Your task to perform on an android device: change keyboard looks Image 0: 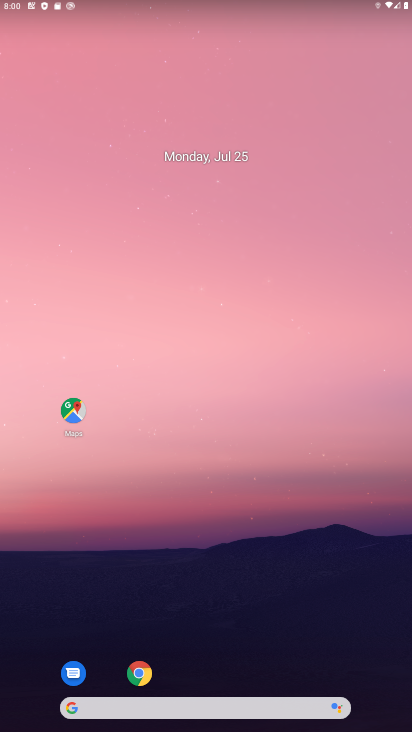
Step 0: drag from (281, 700) to (195, 217)
Your task to perform on an android device: change keyboard looks Image 1: 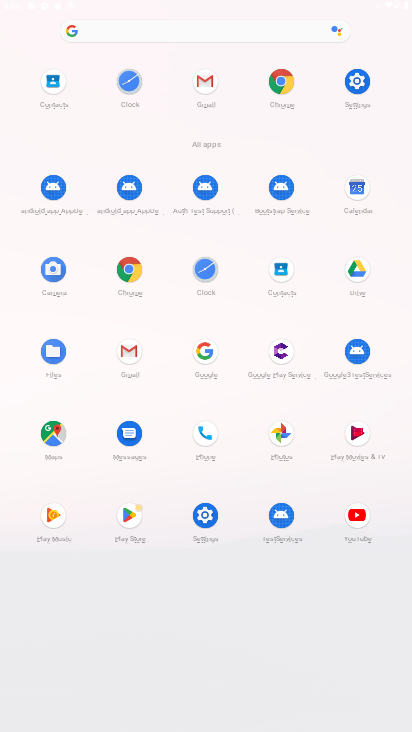
Step 1: click (206, 513)
Your task to perform on an android device: change keyboard looks Image 2: 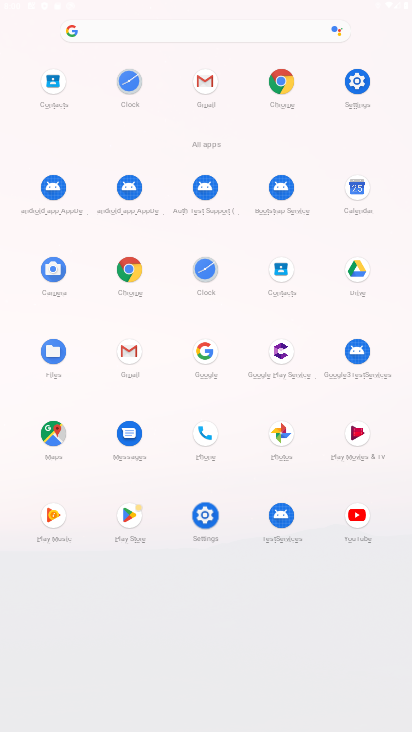
Step 2: click (206, 513)
Your task to perform on an android device: change keyboard looks Image 3: 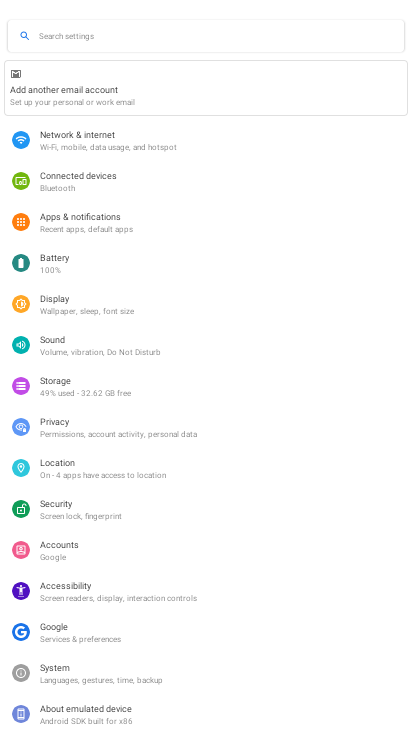
Step 3: drag from (76, 620) to (95, 297)
Your task to perform on an android device: change keyboard looks Image 4: 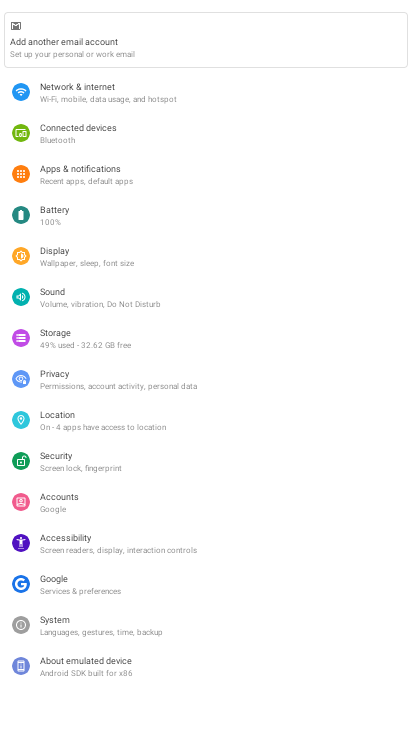
Step 4: drag from (149, 589) to (157, 165)
Your task to perform on an android device: change keyboard looks Image 5: 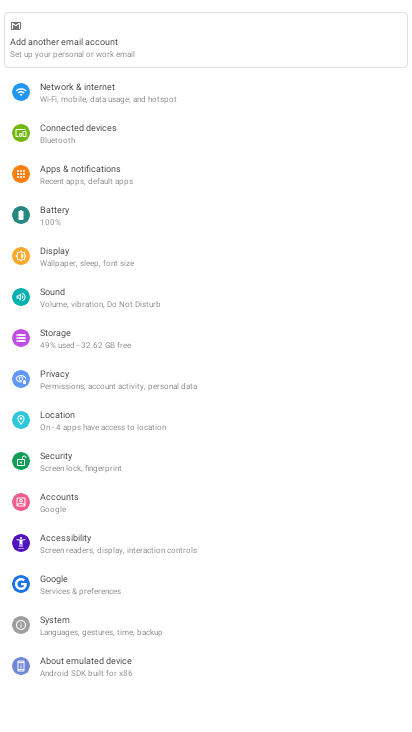
Step 5: click (69, 629)
Your task to perform on an android device: change keyboard looks Image 6: 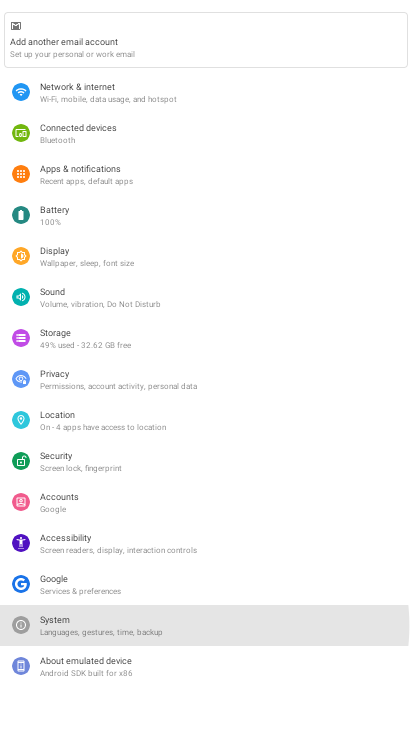
Step 6: click (70, 628)
Your task to perform on an android device: change keyboard looks Image 7: 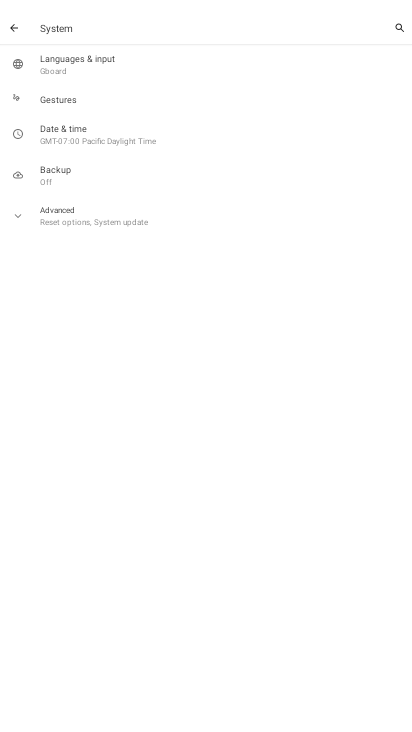
Step 7: click (48, 70)
Your task to perform on an android device: change keyboard looks Image 8: 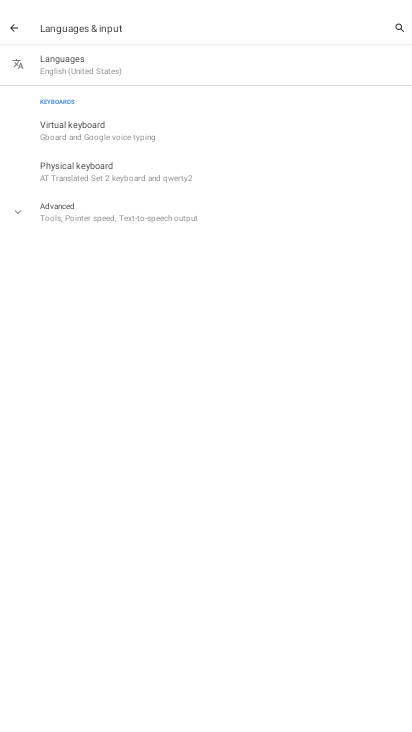
Step 8: click (61, 132)
Your task to perform on an android device: change keyboard looks Image 9: 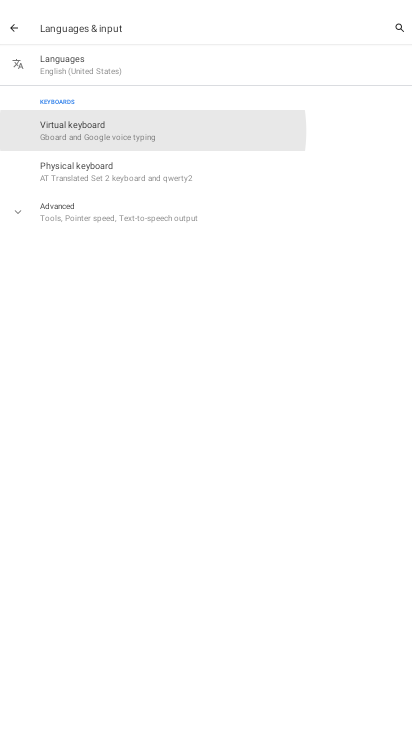
Step 9: click (61, 132)
Your task to perform on an android device: change keyboard looks Image 10: 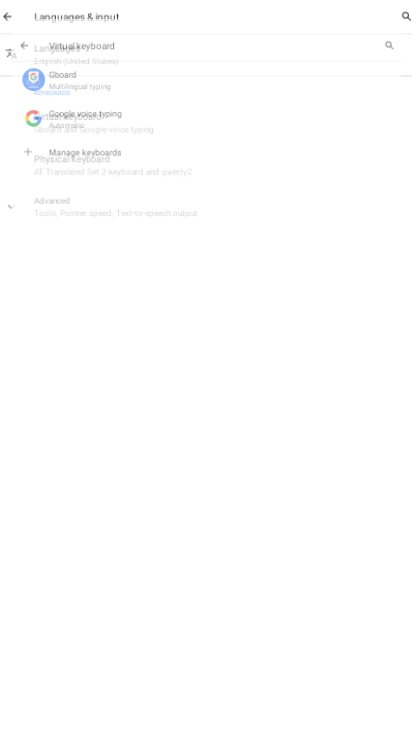
Step 10: click (61, 132)
Your task to perform on an android device: change keyboard looks Image 11: 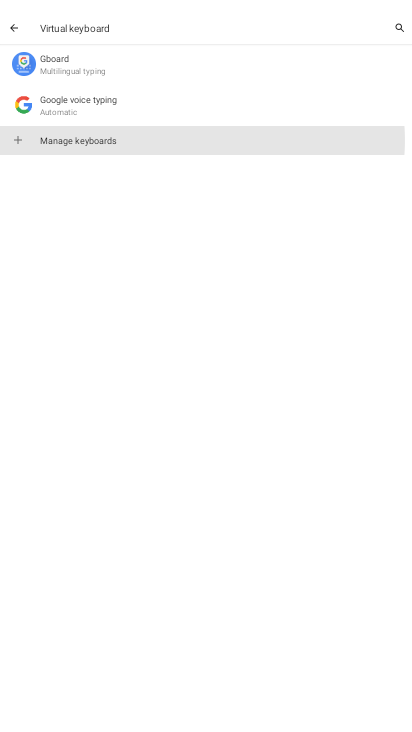
Step 11: click (61, 132)
Your task to perform on an android device: change keyboard looks Image 12: 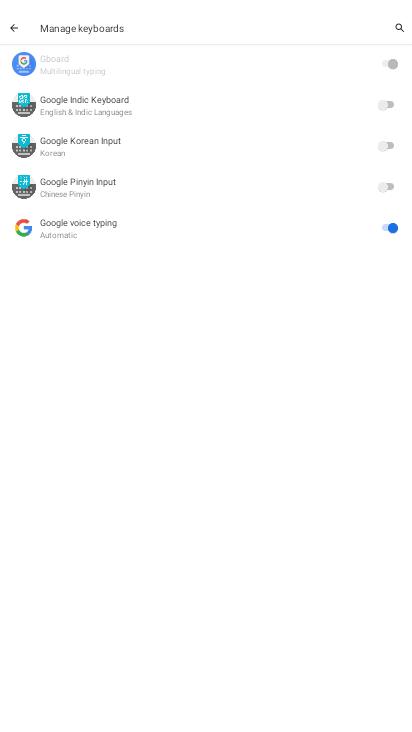
Step 12: click (58, 60)
Your task to perform on an android device: change keyboard looks Image 13: 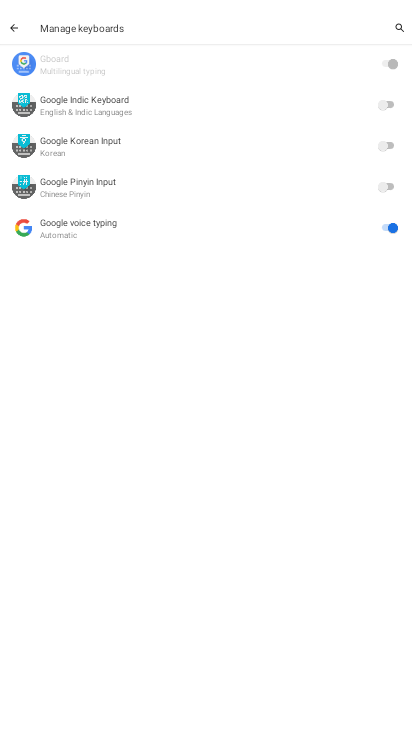
Step 13: click (11, 34)
Your task to perform on an android device: change keyboard looks Image 14: 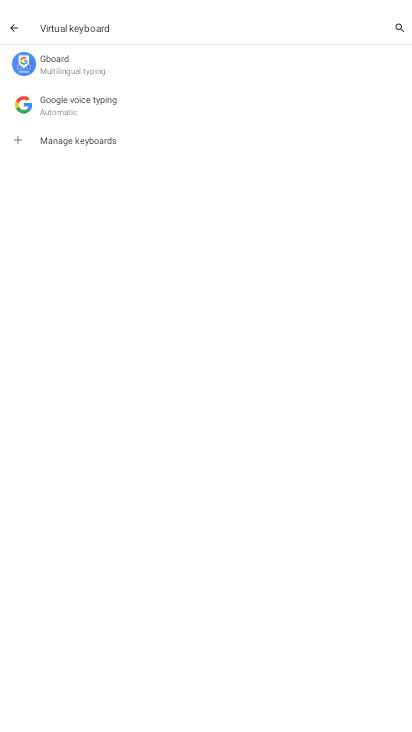
Step 14: click (45, 64)
Your task to perform on an android device: change keyboard looks Image 15: 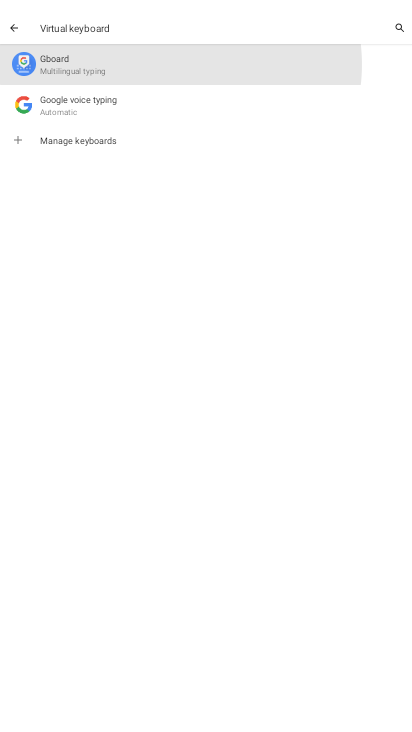
Step 15: click (45, 64)
Your task to perform on an android device: change keyboard looks Image 16: 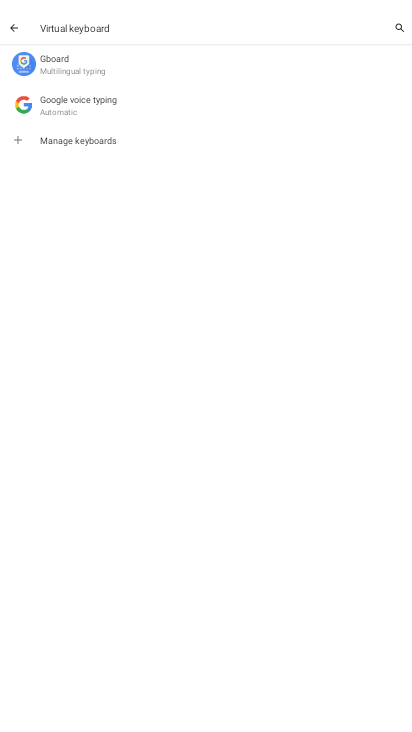
Step 16: click (45, 64)
Your task to perform on an android device: change keyboard looks Image 17: 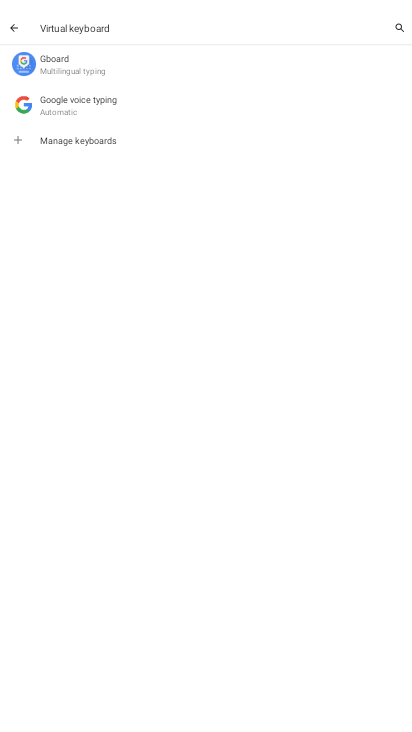
Step 17: click (45, 64)
Your task to perform on an android device: change keyboard looks Image 18: 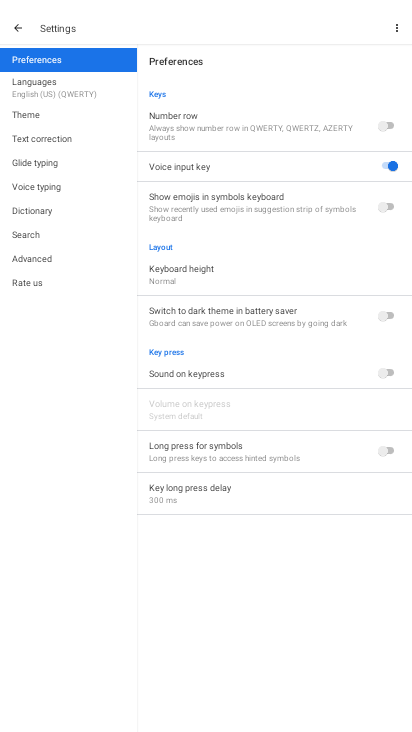
Step 18: click (23, 117)
Your task to perform on an android device: change keyboard looks Image 19: 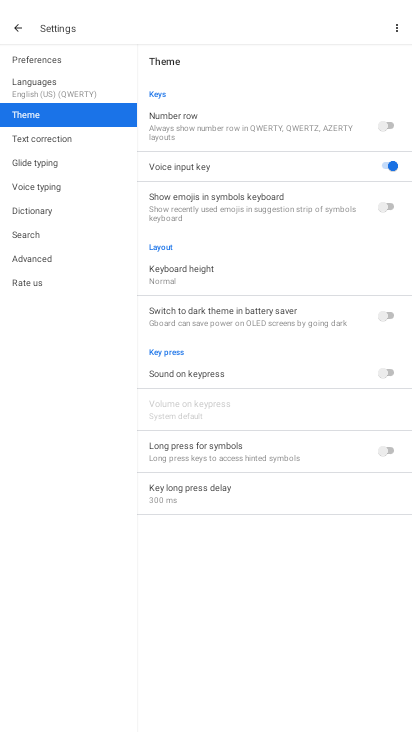
Step 19: click (23, 117)
Your task to perform on an android device: change keyboard looks Image 20: 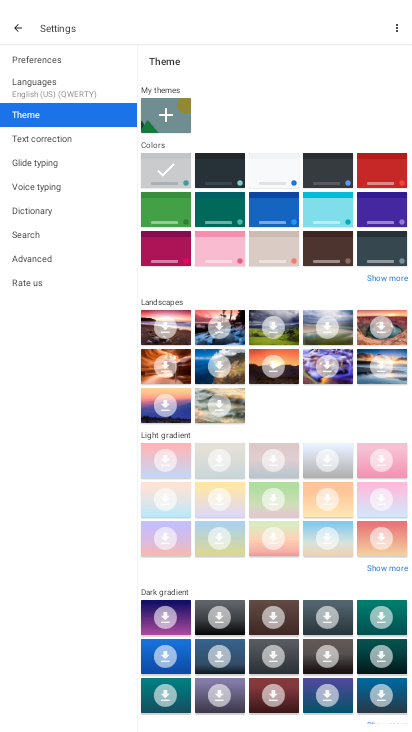
Step 20: click (164, 218)
Your task to perform on an android device: change keyboard looks Image 21: 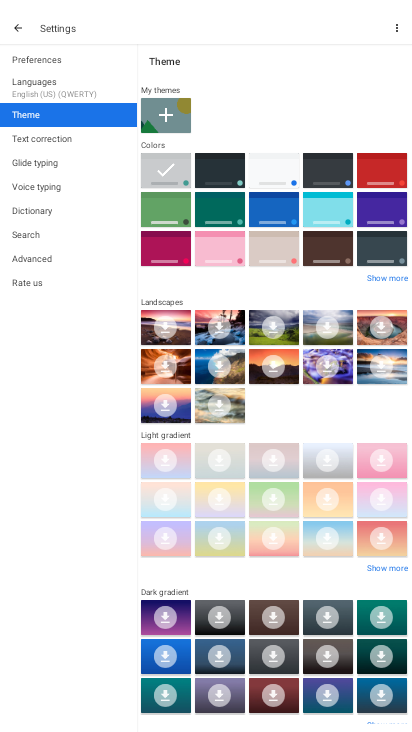
Step 21: click (159, 219)
Your task to perform on an android device: change keyboard looks Image 22: 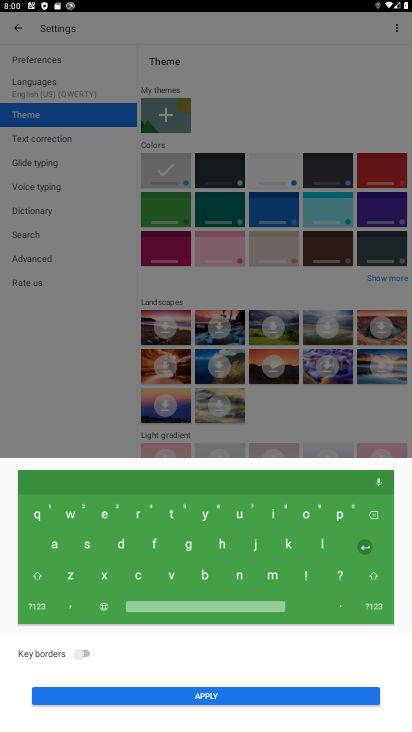
Step 22: click (224, 708)
Your task to perform on an android device: change keyboard looks Image 23: 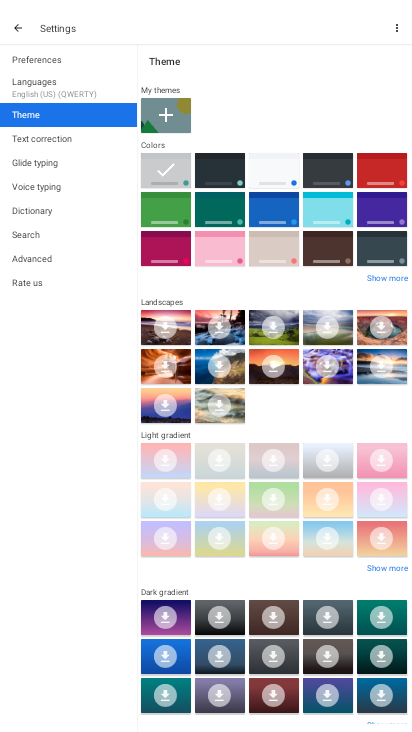
Step 23: click (223, 687)
Your task to perform on an android device: change keyboard looks Image 24: 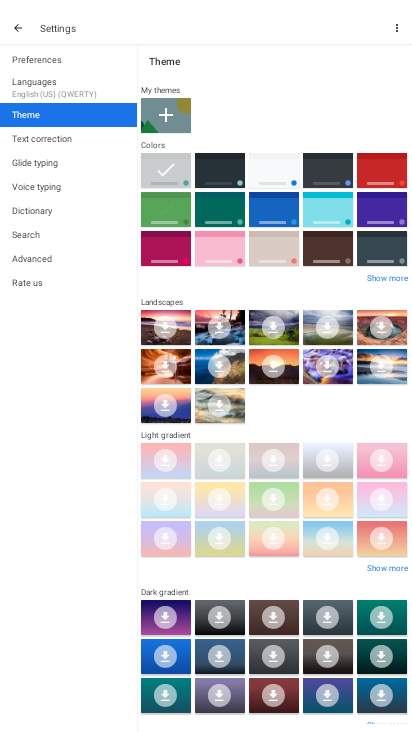
Step 24: click (223, 687)
Your task to perform on an android device: change keyboard looks Image 25: 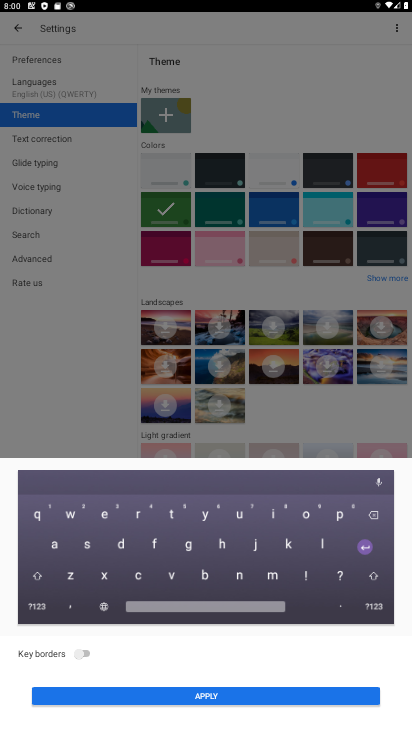
Step 25: task complete